Your task to perform on an android device: What's on my calendar tomorrow? Image 0: 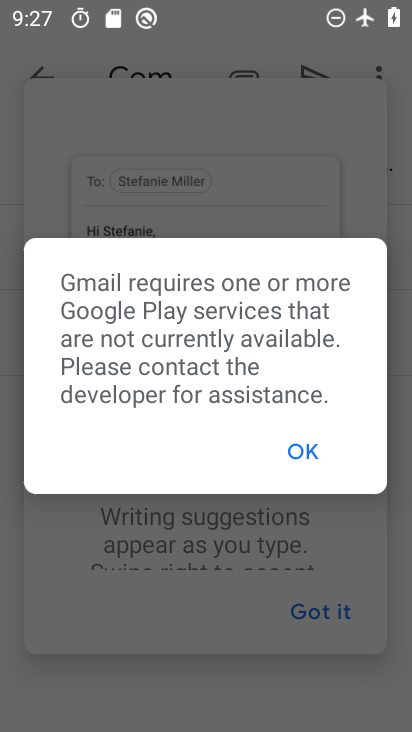
Step 0: press home button
Your task to perform on an android device: What's on my calendar tomorrow? Image 1: 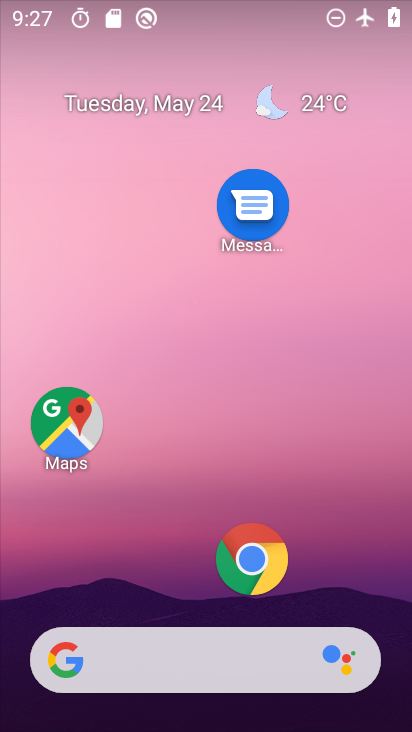
Step 1: drag from (179, 589) to (194, 133)
Your task to perform on an android device: What's on my calendar tomorrow? Image 2: 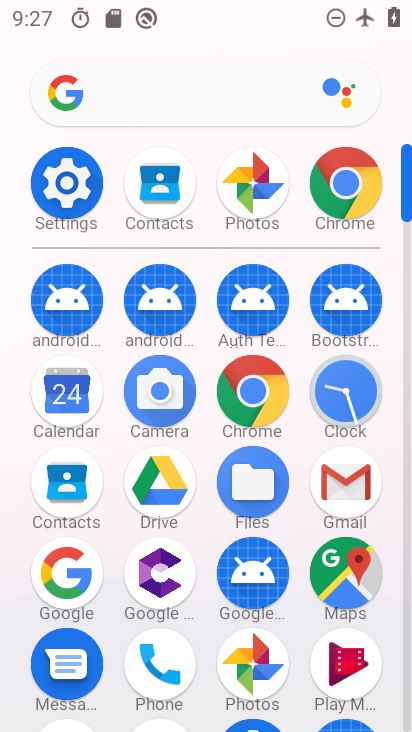
Step 2: click (45, 388)
Your task to perform on an android device: What's on my calendar tomorrow? Image 3: 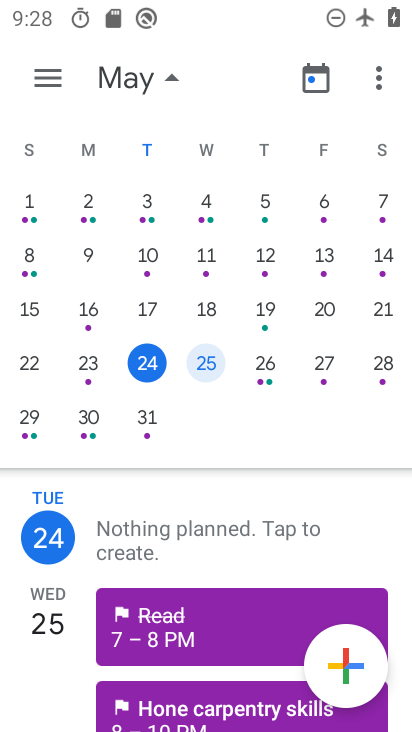
Step 3: click (215, 363)
Your task to perform on an android device: What's on my calendar tomorrow? Image 4: 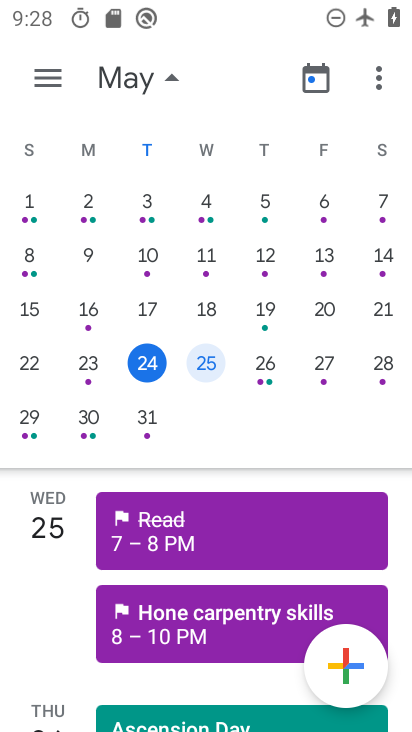
Step 4: task complete